Your task to perform on an android device: show emergency info Image 0: 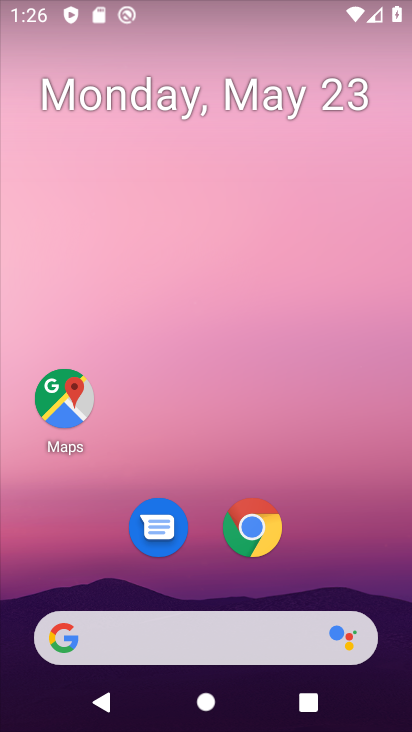
Step 0: drag from (198, 554) to (230, 120)
Your task to perform on an android device: show emergency info Image 1: 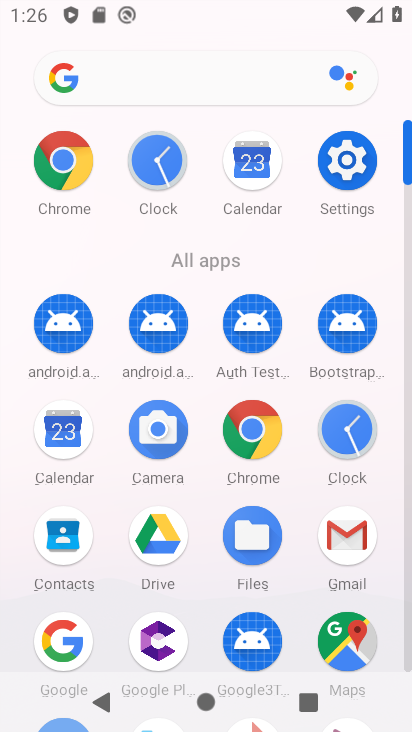
Step 1: click (345, 145)
Your task to perform on an android device: show emergency info Image 2: 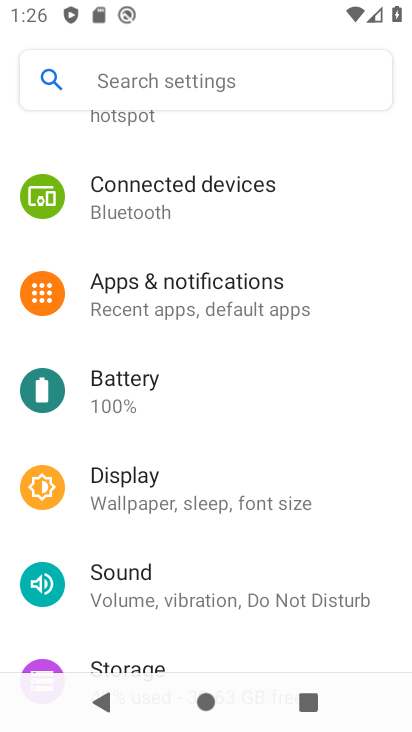
Step 2: drag from (212, 585) to (270, 121)
Your task to perform on an android device: show emergency info Image 3: 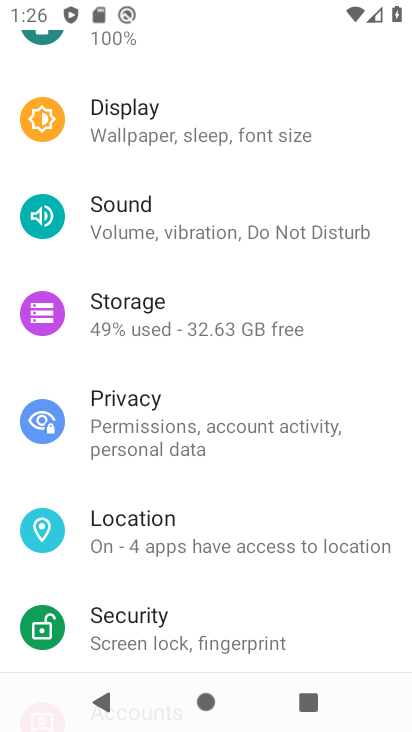
Step 3: drag from (209, 533) to (254, 58)
Your task to perform on an android device: show emergency info Image 4: 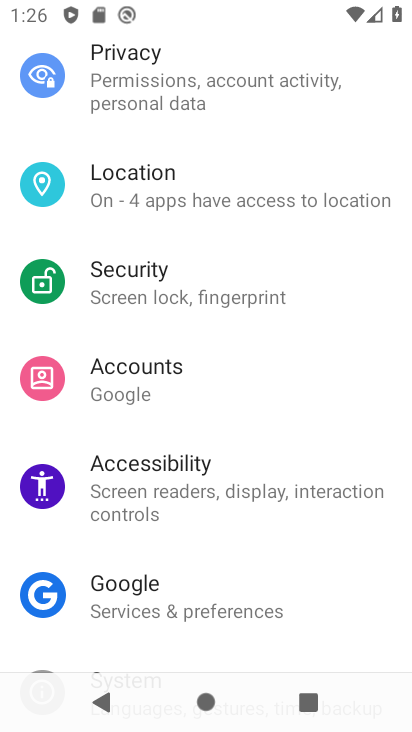
Step 4: drag from (211, 521) to (314, 32)
Your task to perform on an android device: show emergency info Image 5: 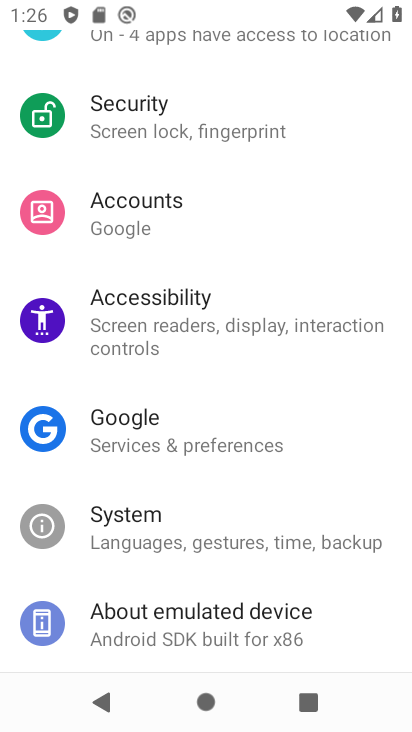
Step 5: click (153, 630)
Your task to perform on an android device: show emergency info Image 6: 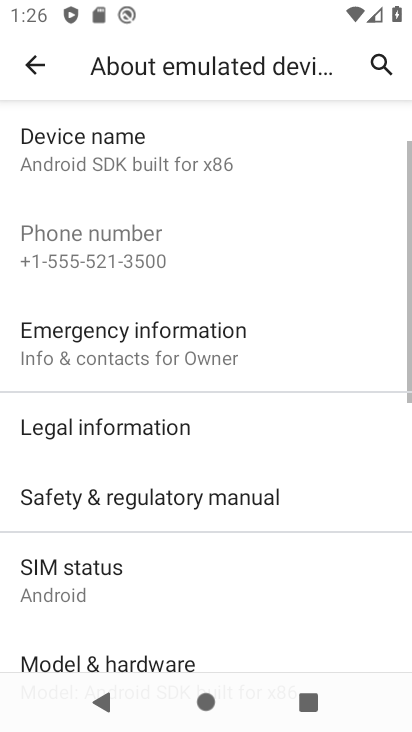
Step 6: click (177, 360)
Your task to perform on an android device: show emergency info Image 7: 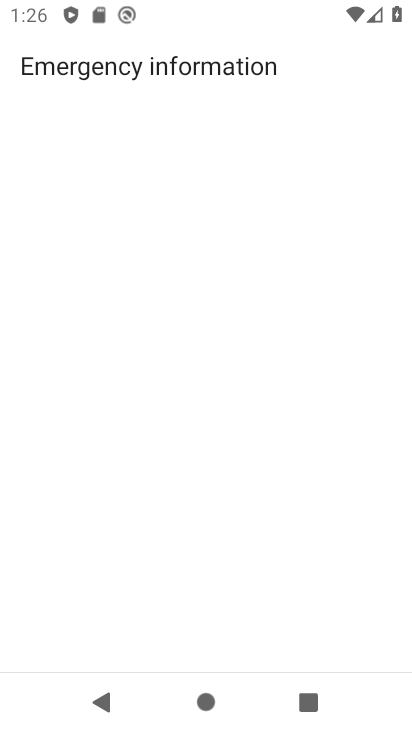
Step 7: task complete